Your task to perform on an android device: Open the calendar app, open the side menu, and click the "Day" option Image 0: 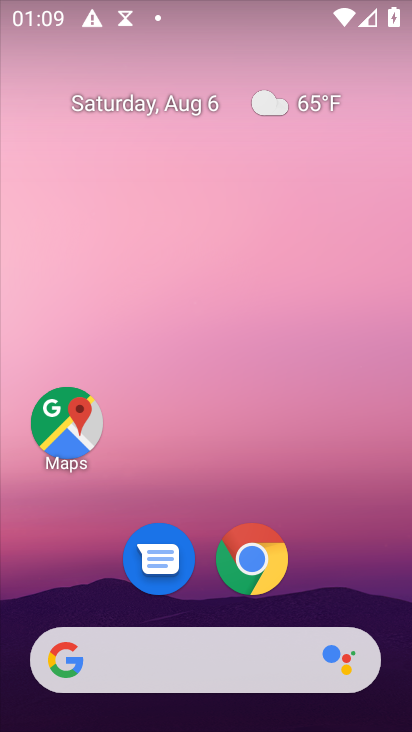
Step 0: drag from (344, 592) to (232, 150)
Your task to perform on an android device: Open the calendar app, open the side menu, and click the "Day" option Image 1: 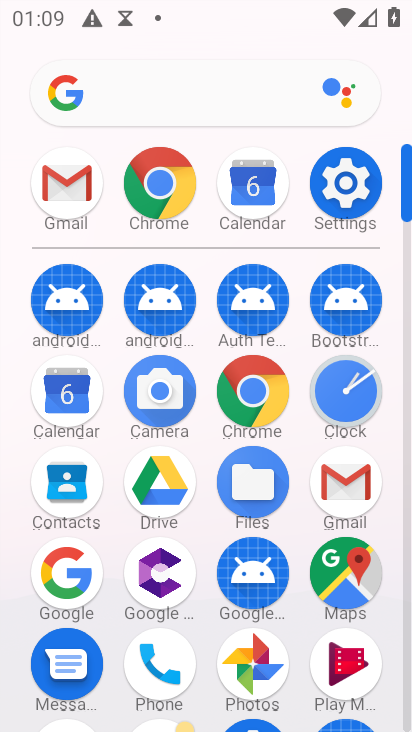
Step 1: click (64, 391)
Your task to perform on an android device: Open the calendar app, open the side menu, and click the "Day" option Image 2: 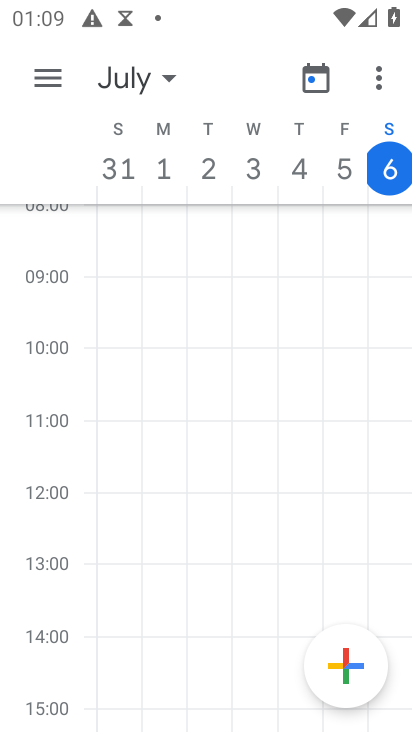
Step 2: click (46, 78)
Your task to perform on an android device: Open the calendar app, open the side menu, and click the "Day" option Image 3: 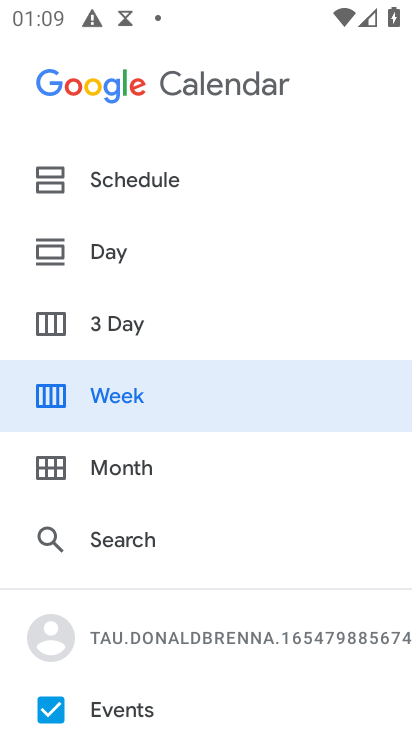
Step 3: click (104, 242)
Your task to perform on an android device: Open the calendar app, open the side menu, and click the "Day" option Image 4: 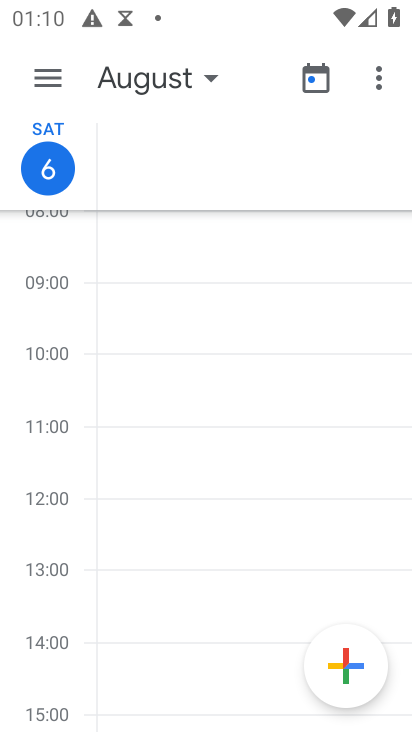
Step 4: task complete